Your task to perform on an android device: turn on the 12-hour format for clock Image 0: 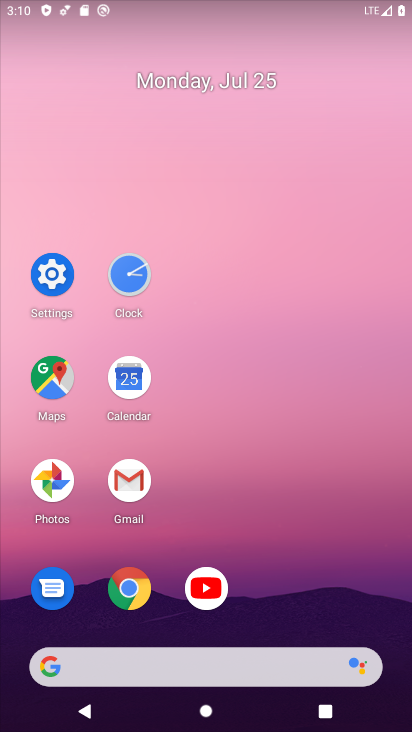
Step 0: click (123, 279)
Your task to perform on an android device: turn on the 12-hour format for clock Image 1: 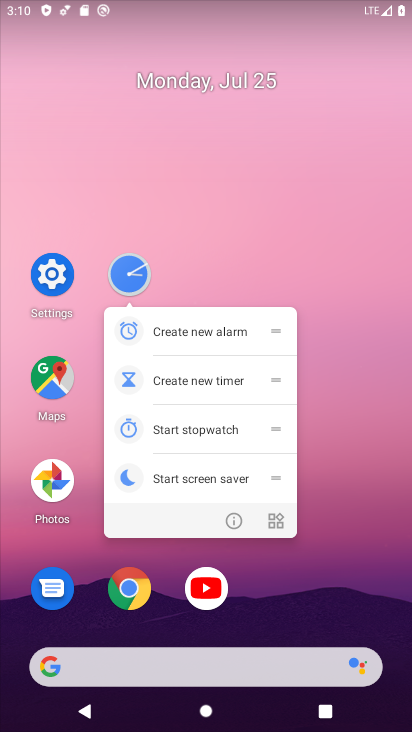
Step 1: click (214, 220)
Your task to perform on an android device: turn on the 12-hour format for clock Image 2: 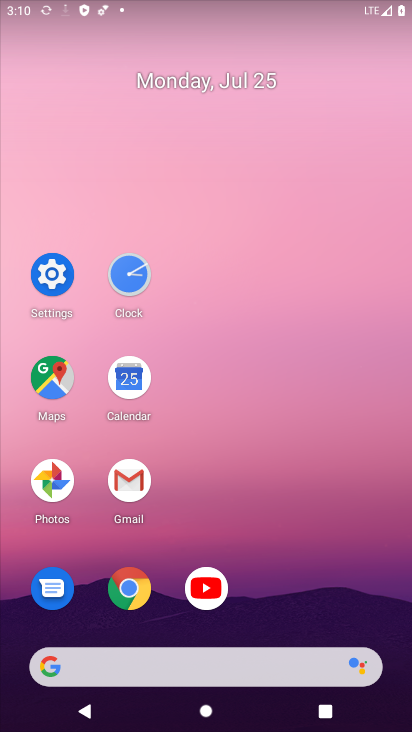
Step 2: click (130, 276)
Your task to perform on an android device: turn on the 12-hour format for clock Image 3: 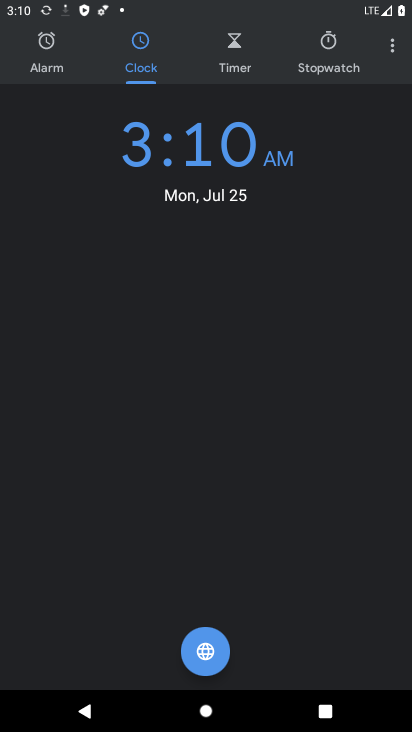
Step 3: click (393, 43)
Your task to perform on an android device: turn on the 12-hour format for clock Image 4: 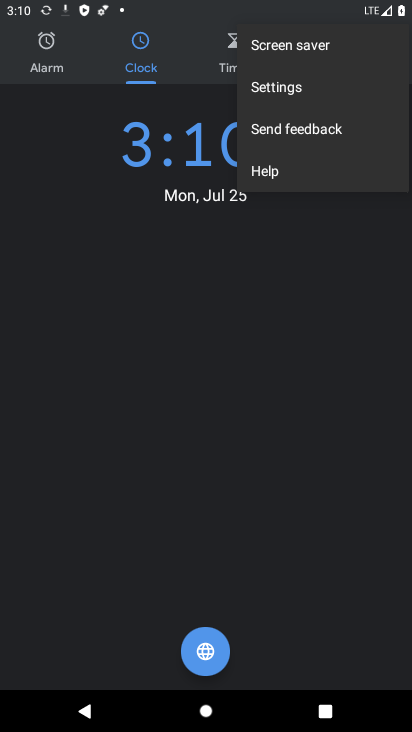
Step 4: click (285, 89)
Your task to perform on an android device: turn on the 12-hour format for clock Image 5: 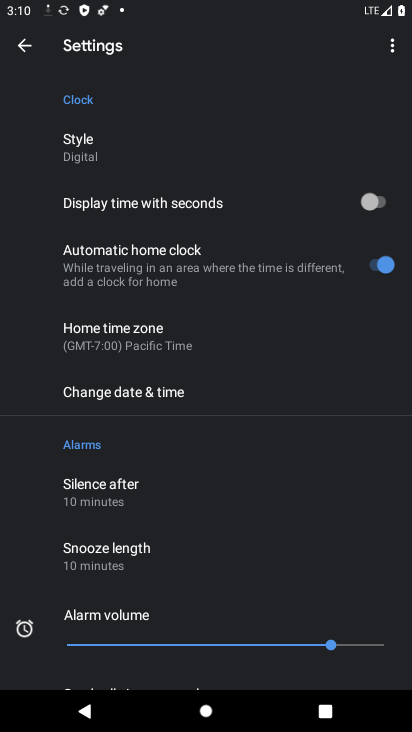
Step 5: click (127, 391)
Your task to perform on an android device: turn on the 12-hour format for clock Image 6: 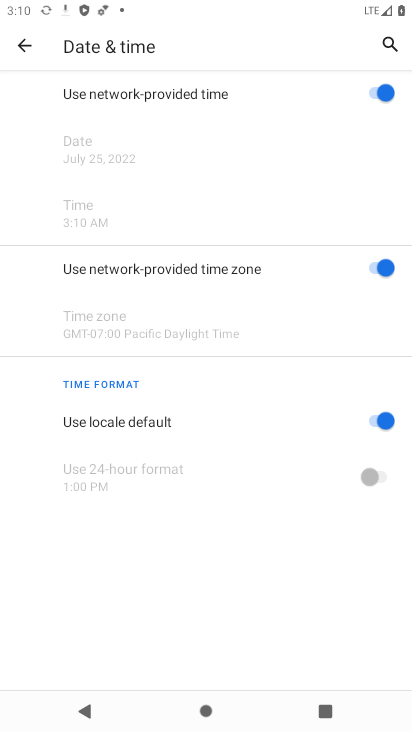
Step 6: task complete